Your task to perform on an android device: clear history in the chrome app Image 0: 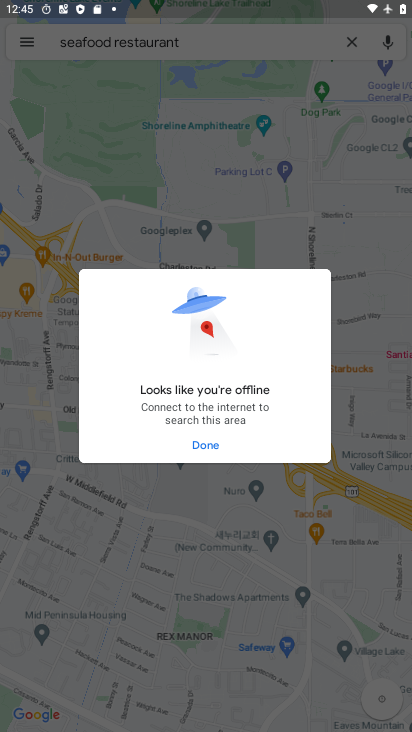
Step 0: click (207, 448)
Your task to perform on an android device: clear history in the chrome app Image 1: 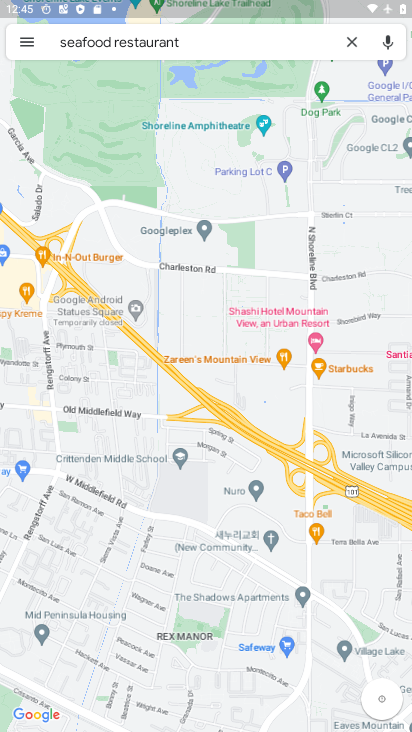
Step 1: press home button
Your task to perform on an android device: clear history in the chrome app Image 2: 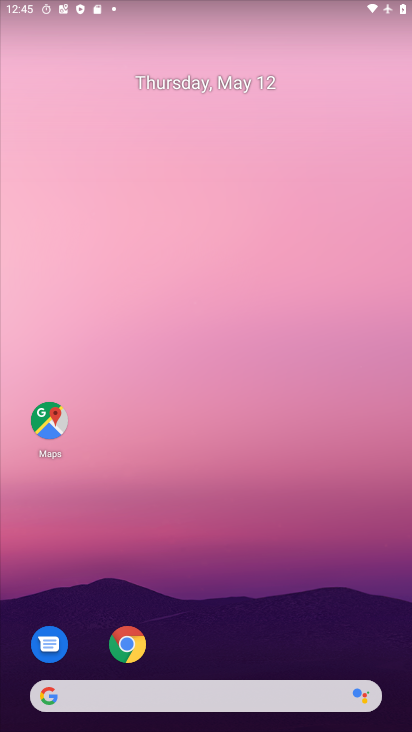
Step 2: click (127, 630)
Your task to perform on an android device: clear history in the chrome app Image 3: 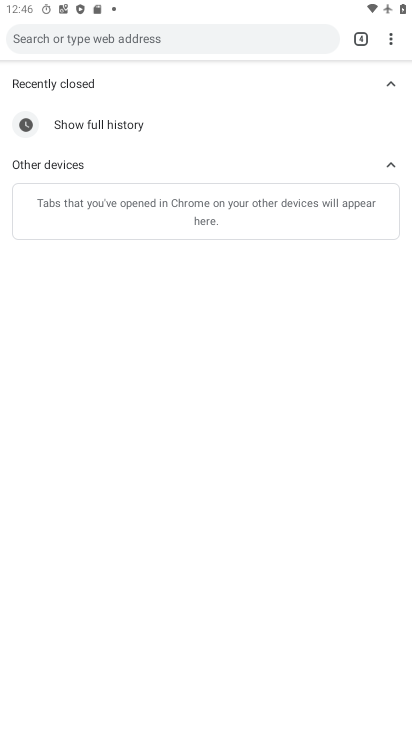
Step 3: click (391, 40)
Your task to perform on an android device: clear history in the chrome app Image 4: 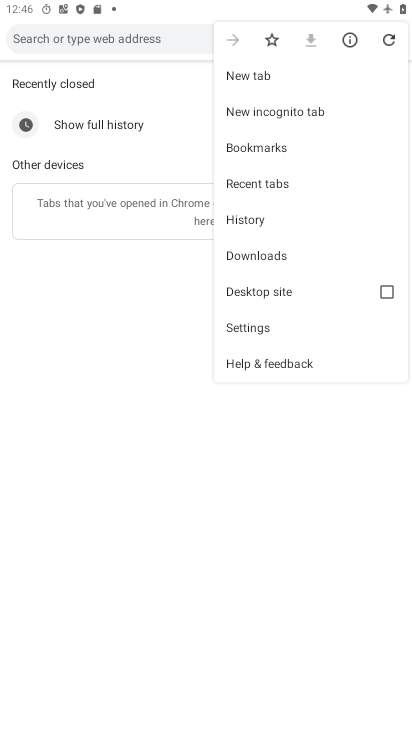
Step 4: click (280, 223)
Your task to perform on an android device: clear history in the chrome app Image 5: 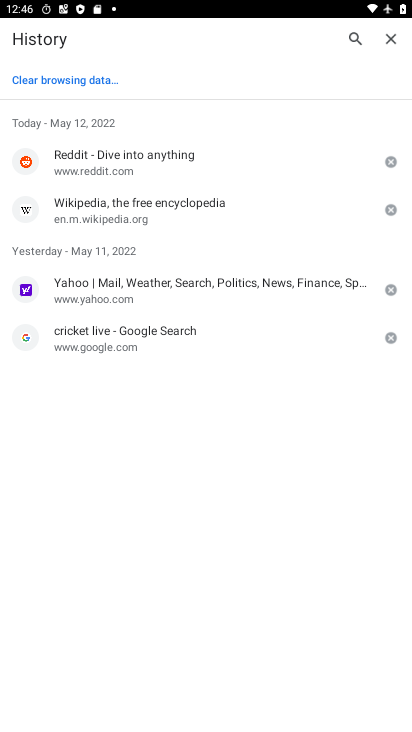
Step 5: click (90, 73)
Your task to perform on an android device: clear history in the chrome app Image 6: 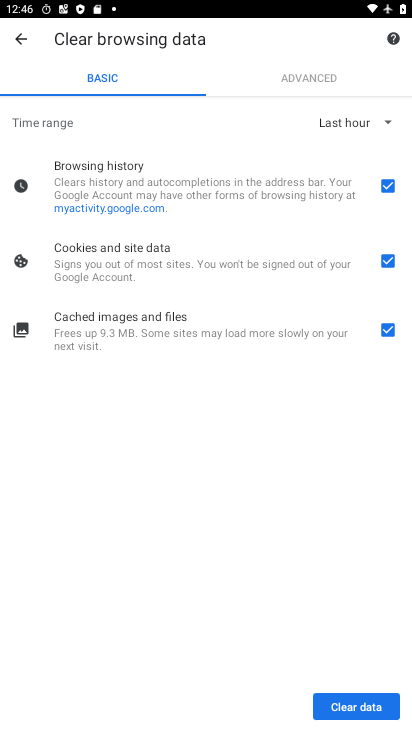
Step 6: click (346, 706)
Your task to perform on an android device: clear history in the chrome app Image 7: 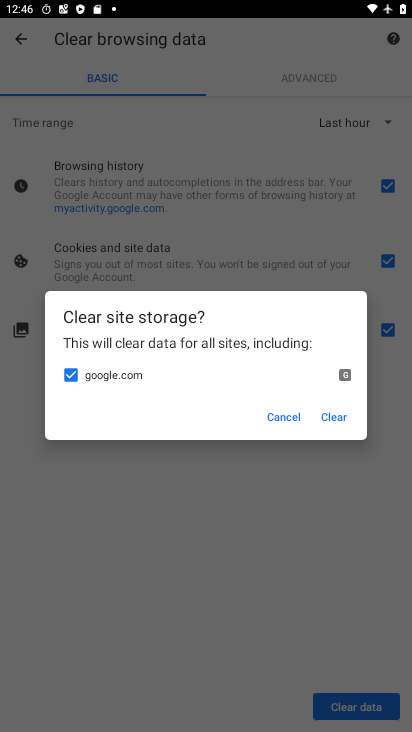
Step 7: click (330, 414)
Your task to perform on an android device: clear history in the chrome app Image 8: 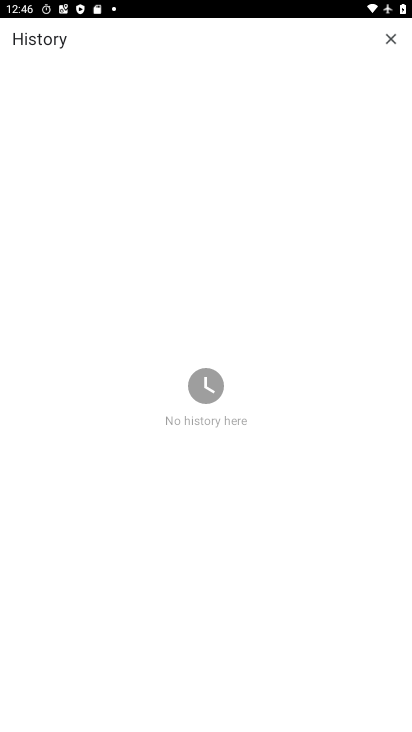
Step 8: task complete